Your task to perform on an android device: delete the emails in spam in the gmail app Image 0: 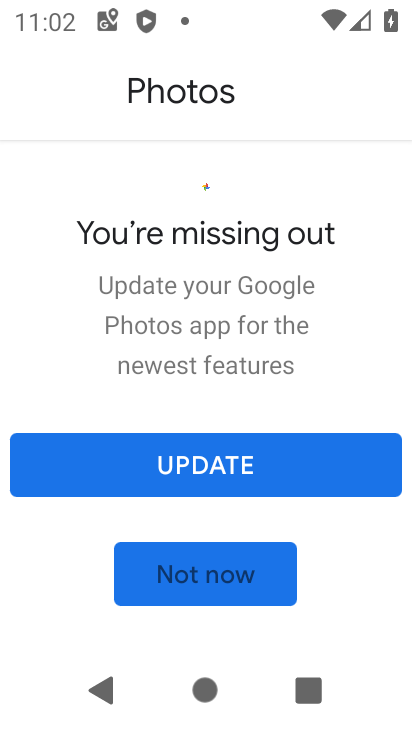
Step 0: press home button
Your task to perform on an android device: delete the emails in spam in the gmail app Image 1: 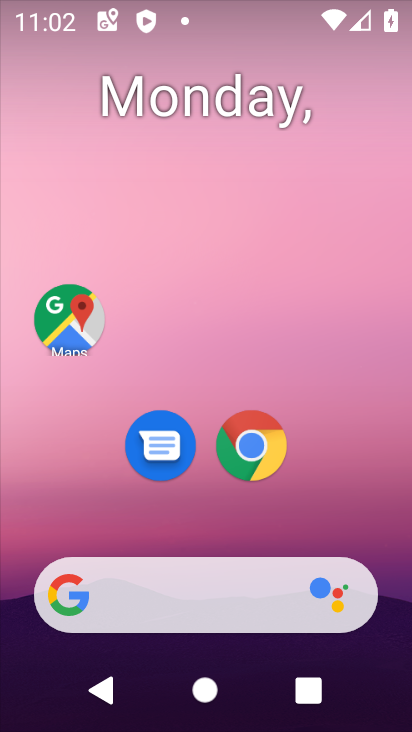
Step 1: drag from (158, 538) to (239, 97)
Your task to perform on an android device: delete the emails in spam in the gmail app Image 2: 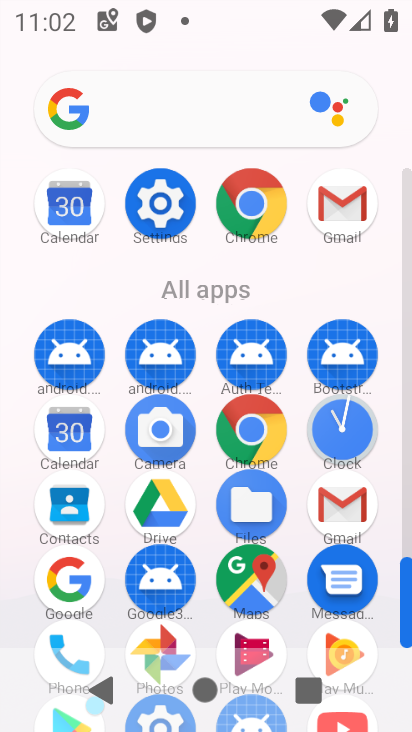
Step 2: click (354, 191)
Your task to perform on an android device: delete the emails in spam in the gmail app Image 3: 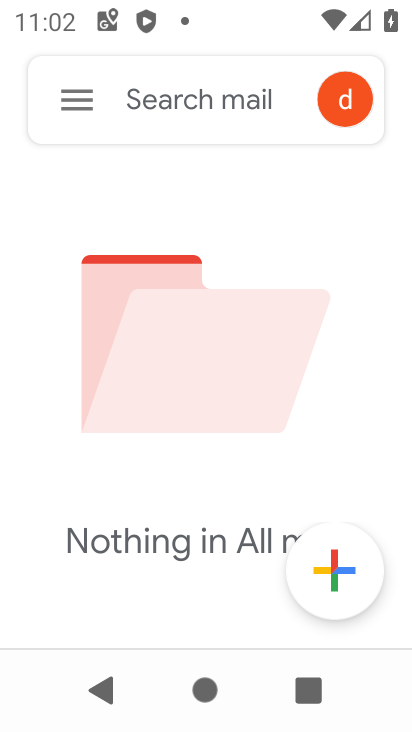
Step 3: task complete